Your task to perform on an android device: Open CNN.com Image 0: 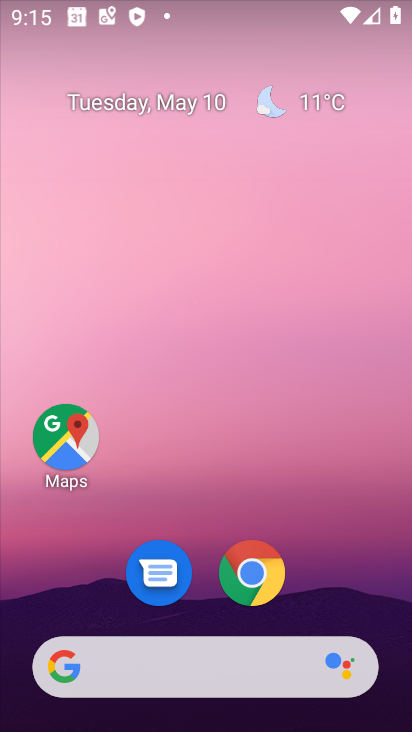
Step 0: click (260, 583)
Your task to perform on an android device: Open CNN.com Image 1: 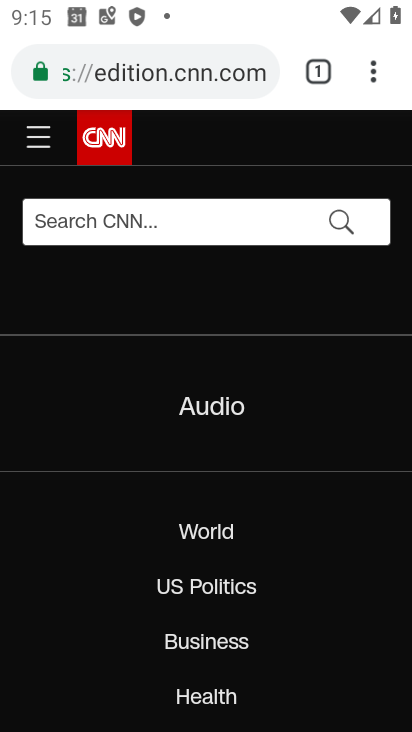
Step 1: task complete